Your task to perform on an android device: Open ESPN.com Image 0: 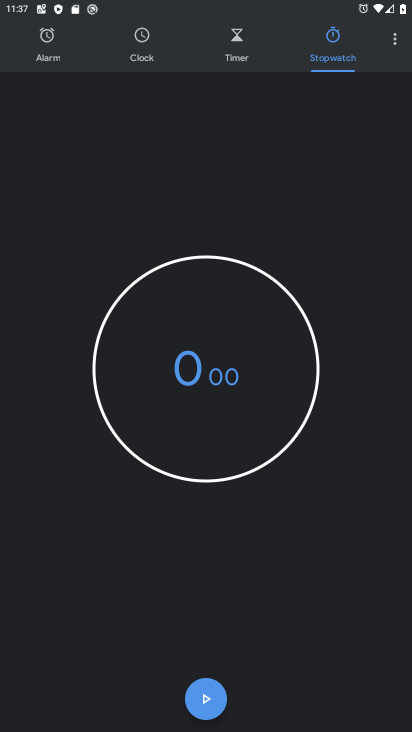
Step 0: press home button
Your task to perform on an android device: Open ESPN.com Image 1: 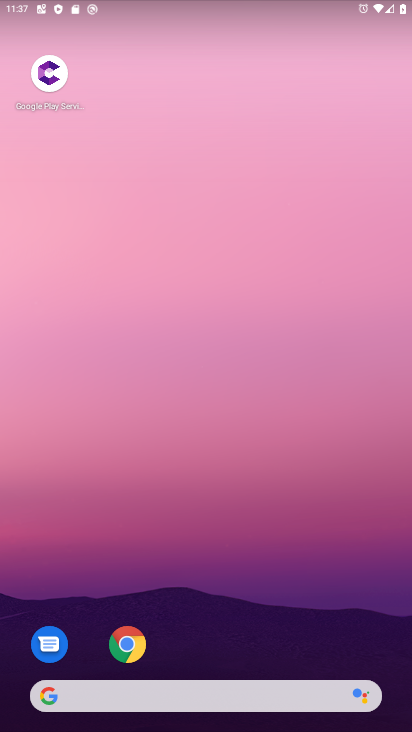
Step 1: drag from (239, 348) to (202, 55)
Your task to perform on an android device: Open ESPN.com Image 2: 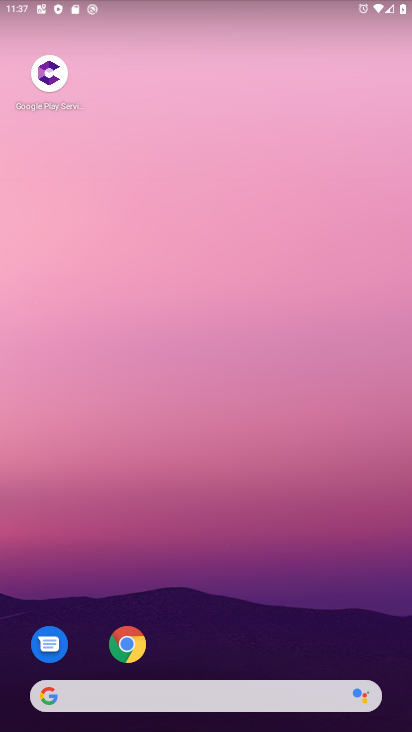
Step 2: drag from (245, 611) to (233, 9)
Your task to perform on an android device: Open ESPN.com Image 3: 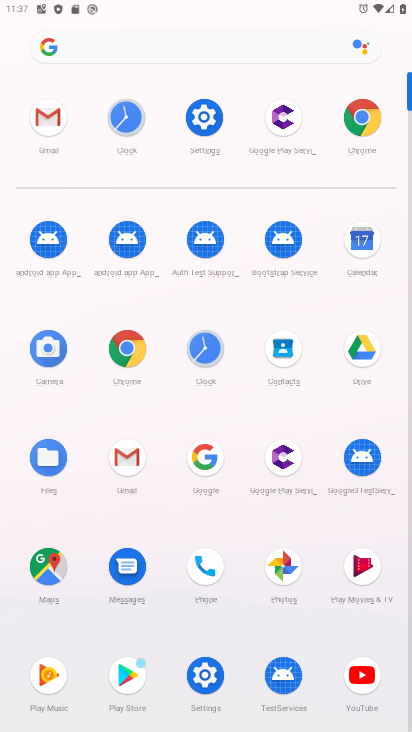
Step 3: click (132, 349)
Your task to perform on an android device: Open ESPN.com Image 4: 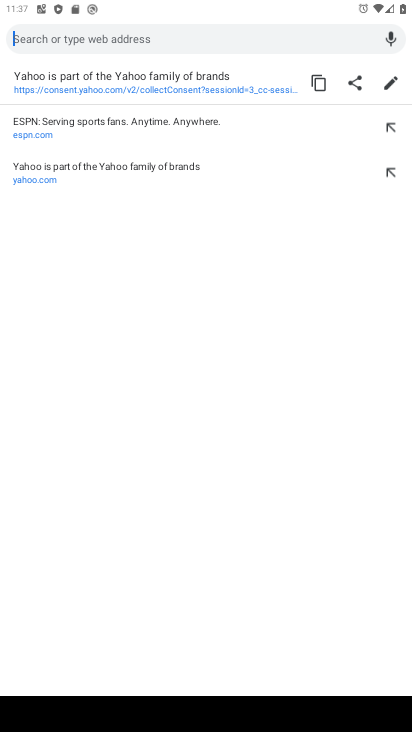
Step 4: click (43, 134)
Your task to perform on an android device: Open ESPN.com Image 5: 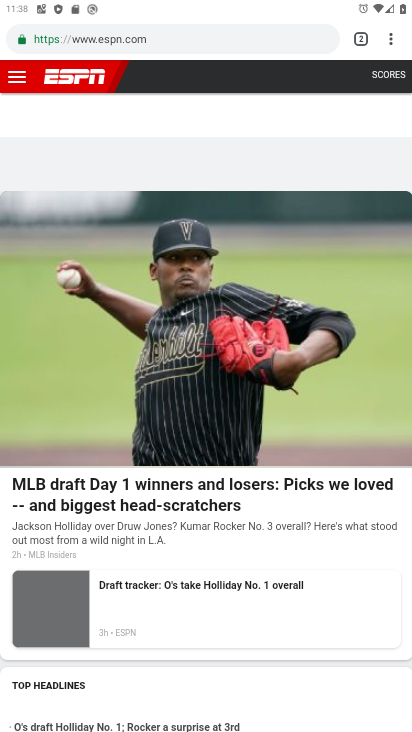
Step 5: task complete